Your task to perform on an android device: Is it going to rain today? Image 0: 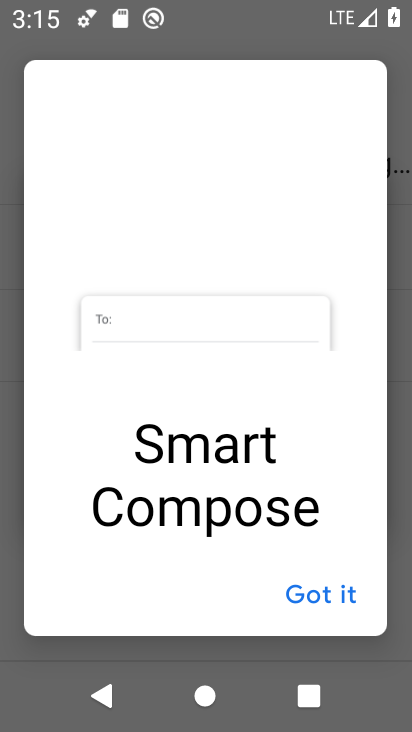
Step 0: press home button
Your task to perform on an android device: Is it going to rain today? Image 1: 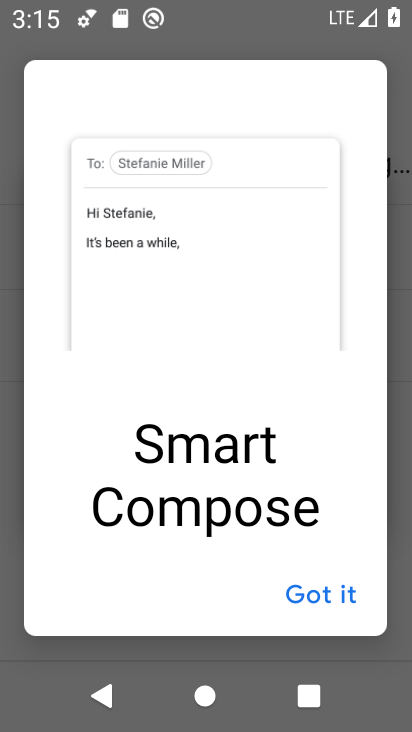
Step 1: press home button
Your task to perform on an android device: Is it going to rain today? Image 2: 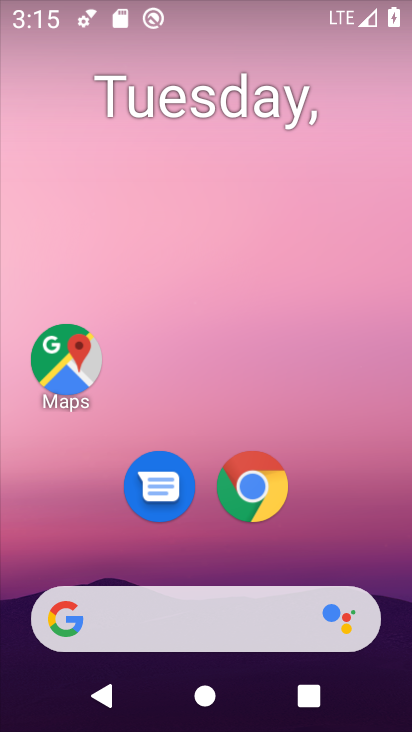
Step 2: drag from (26, 252) to (388, 237)
Your task to perform on an android device: Is it going to rain today? Image 3: 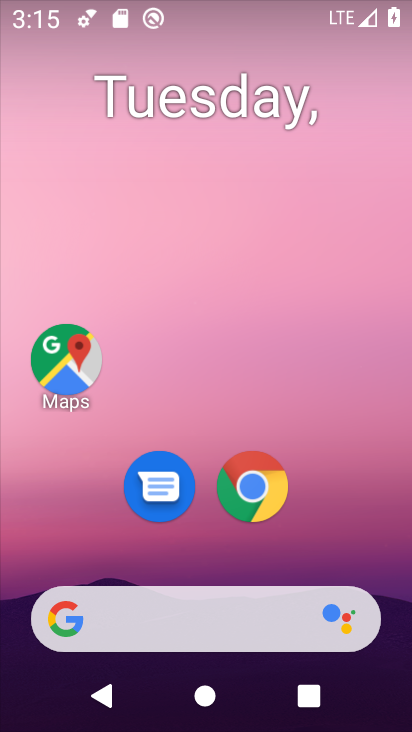
Step 3: drag from (13, 258) to (395, 221)
Your task to perform on an android device: Is it going to rain today? Image 4: 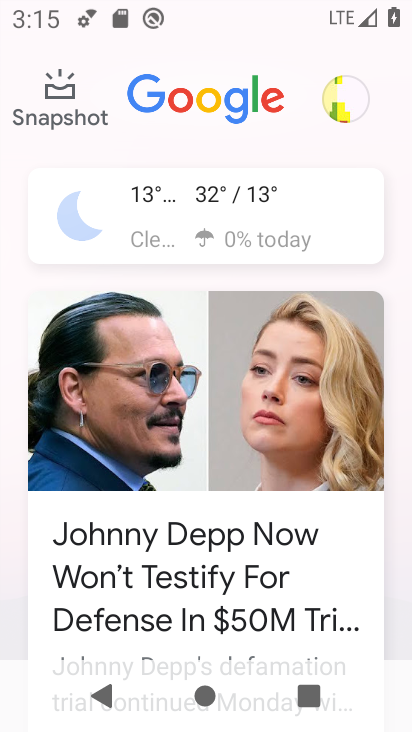
Step 4: click (243, 208)
Your task to perform on an android device: Is it going to rain today? Image 5: 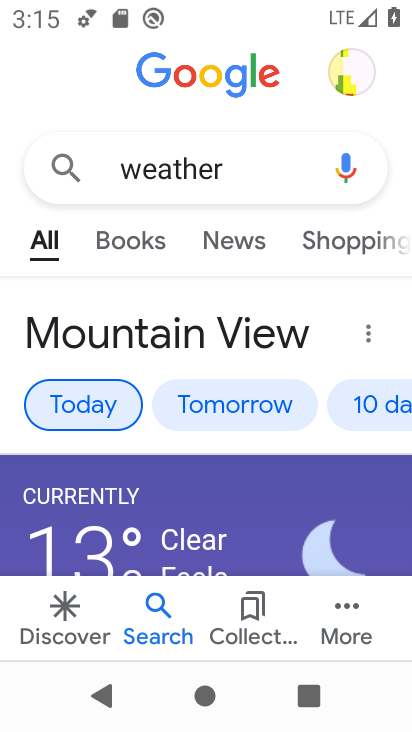
Step 5: task complete